Your task to perform on an android device: When is my next appointment? Image 0: 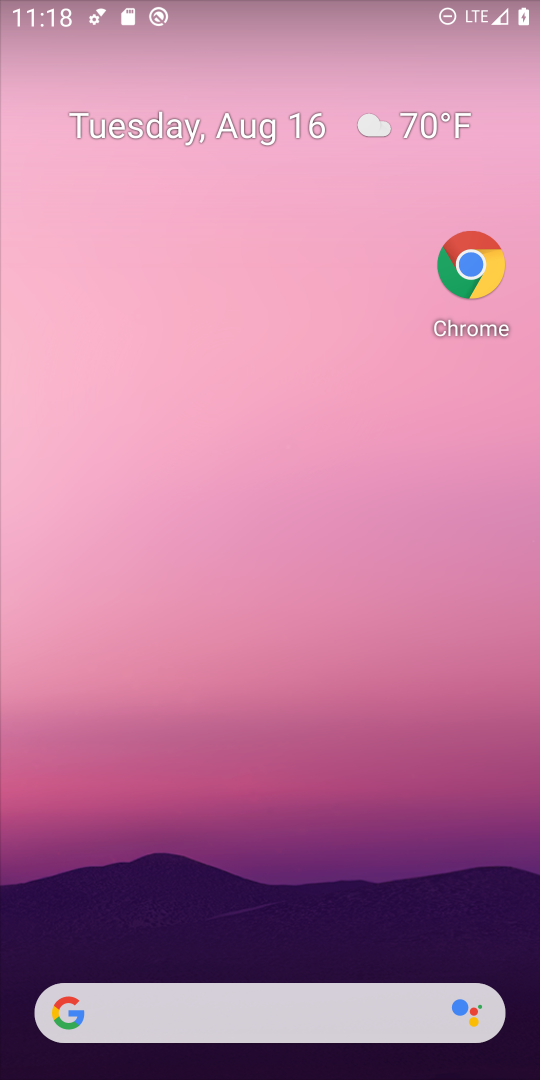
Step 0: drag from (356, 849) to (382, 37)
Your task to perform on an android device: When is my next appointment? Image 1: 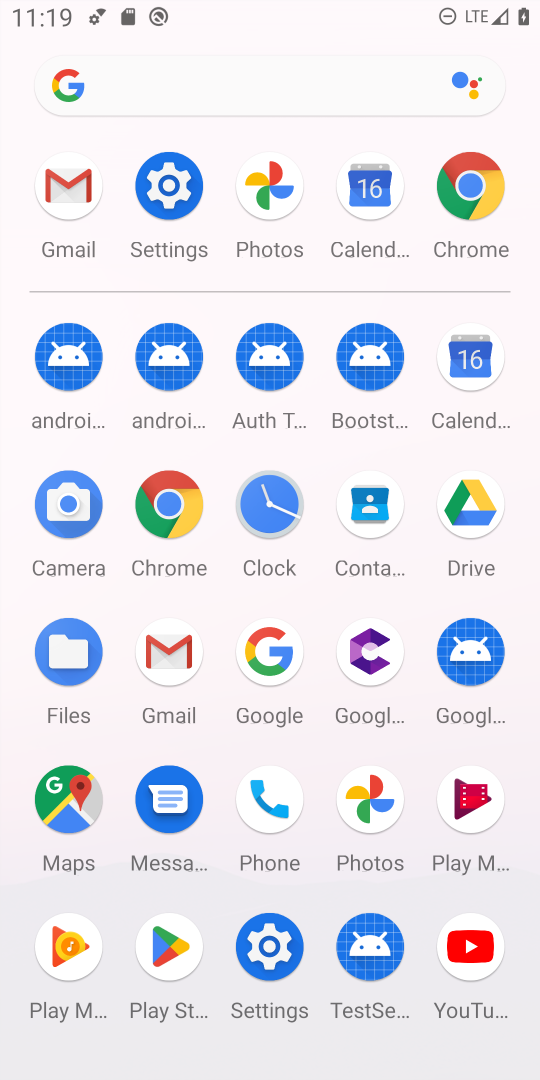
Step 1: click (466, 361)
Your task to perform on an android device: When is my next appointment? Image 2: 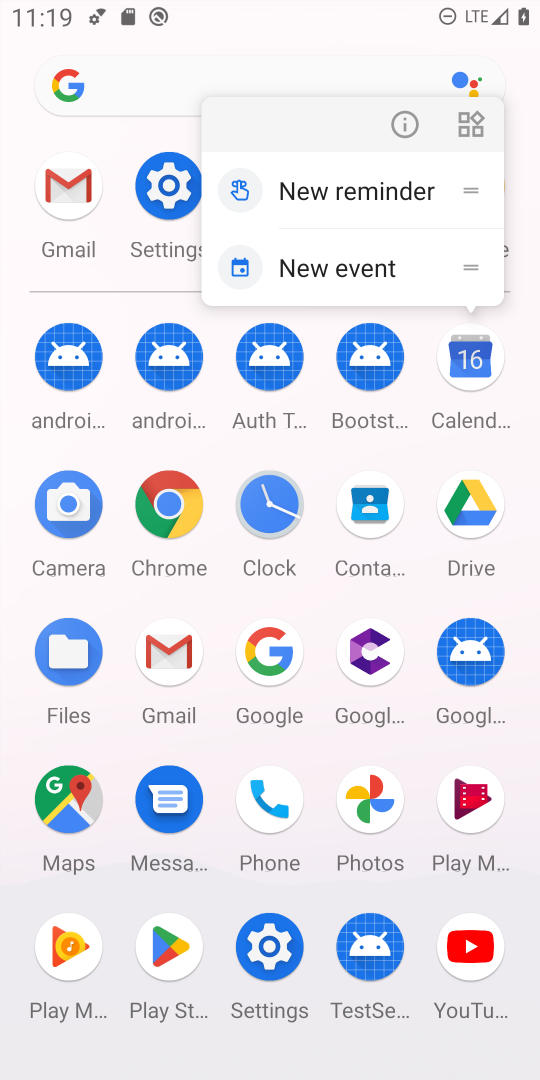
Step 2: click (453, 389)
Your task to perform on an android device: When is my next appointment? Image 3: 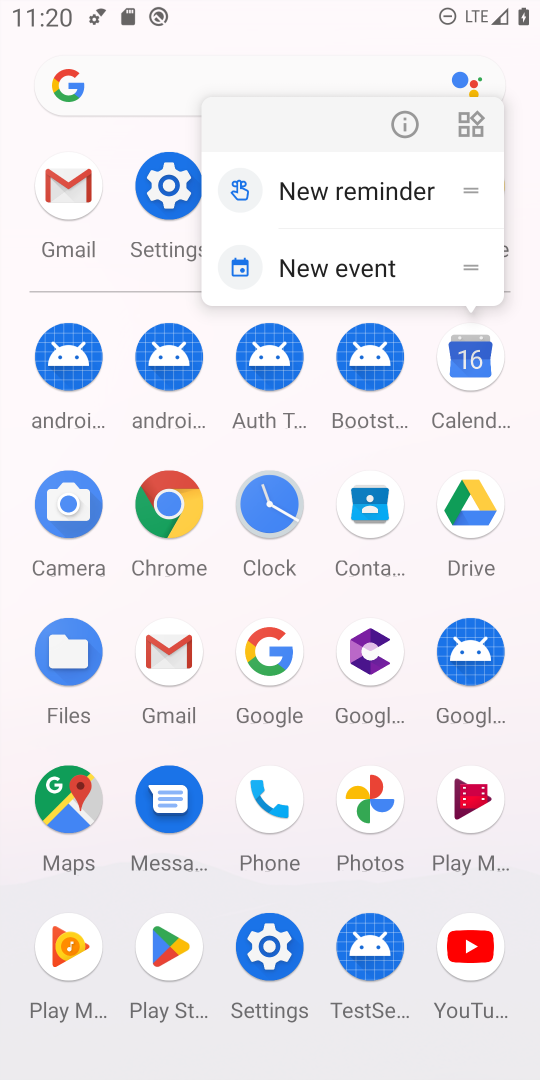
Step 3: click (475, 413)
Your task to perform on an android device: When is my next appointment? Image 4: 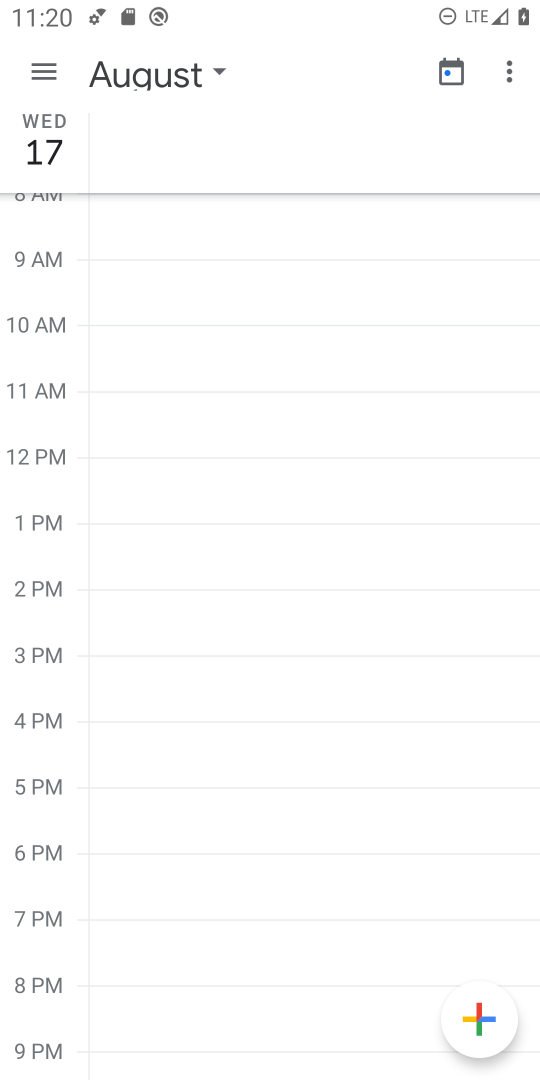
Step 4: click (56, 75)
Your task to perform on an android device: When is my next appointment? Image 5: 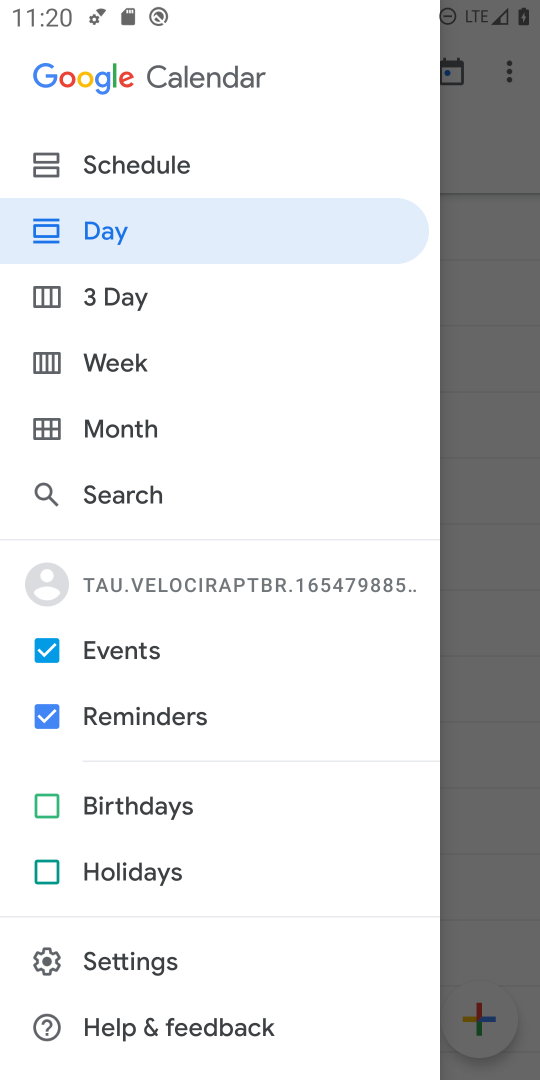
Step 5: click (140, 146)
Your task to perform on an android device: When is my next appointment? Image 6: 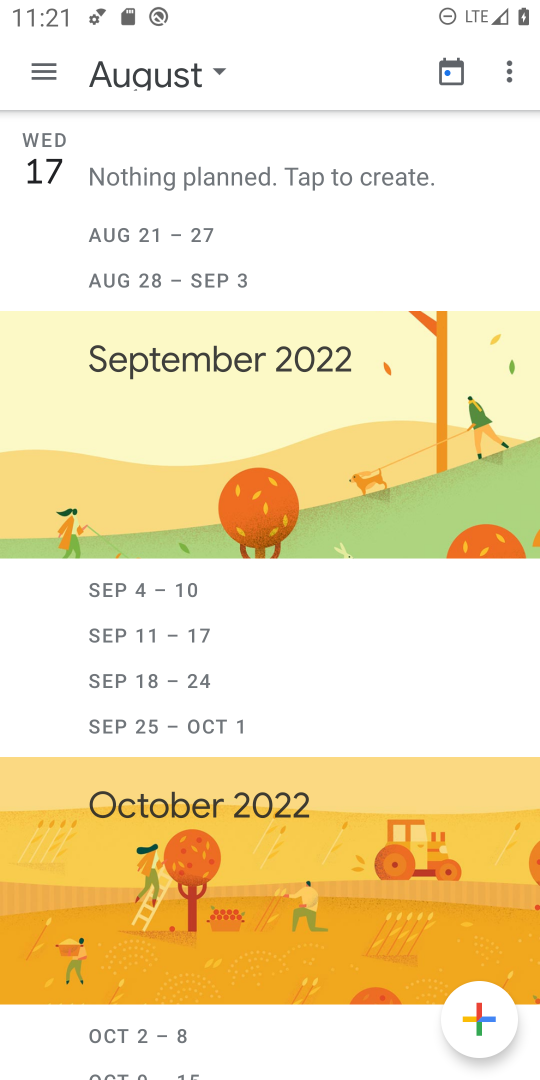
Step 6: task complete